Your task to perform on an android device: Open Google Maps and go to "Timeline" Image 0: 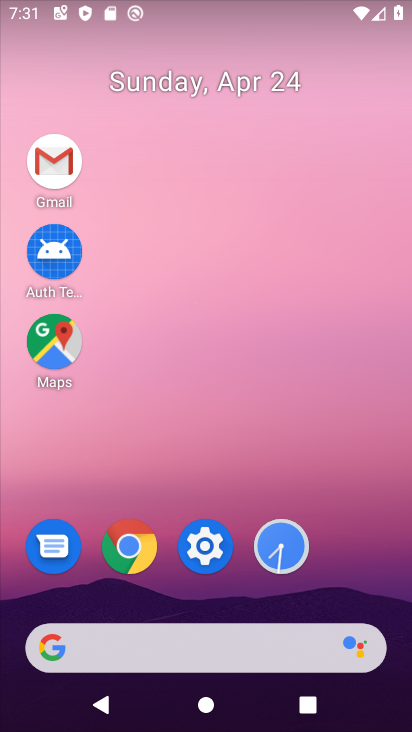
Step 0: click (55, 346)
Your task to perform on an android device: Open Google Maps and go to "Timeline" Image 1: 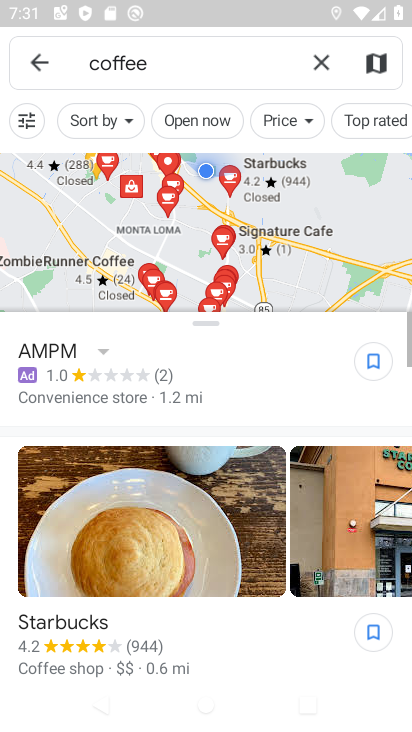
Step 1: click (313, 64)
Your task to perform on an android device: Open Google Maps and go to "Timeline" Image 2: 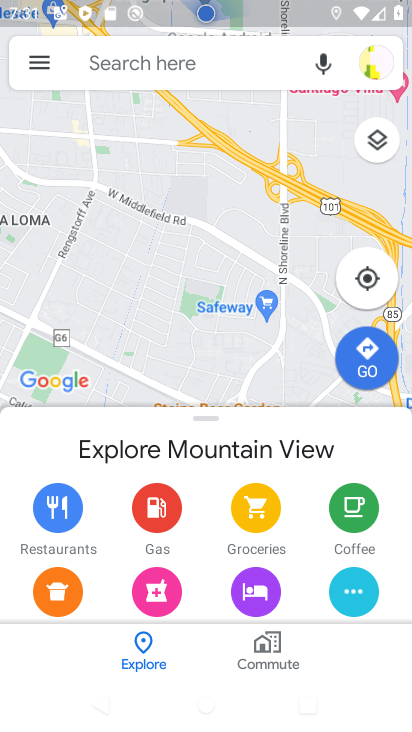
Step 2: click (38, 59)
Your task to perform on an android device: Open Google Maps and go to "Timeline" Image 3: 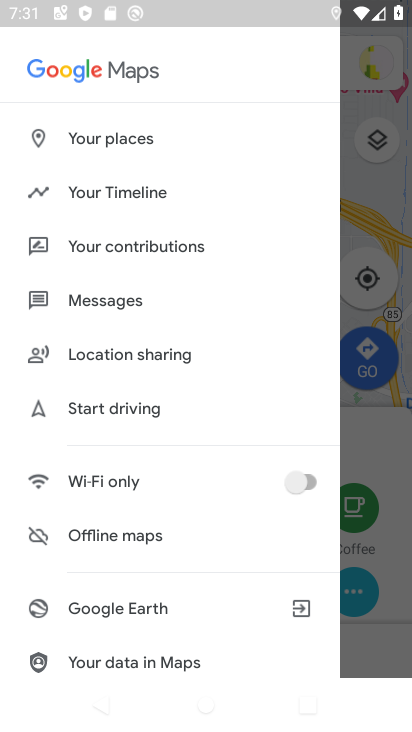
Step 3: click (119, 188)
Your task to perform on an android device: Open Google Maps and go to "Timeline" Image 4: 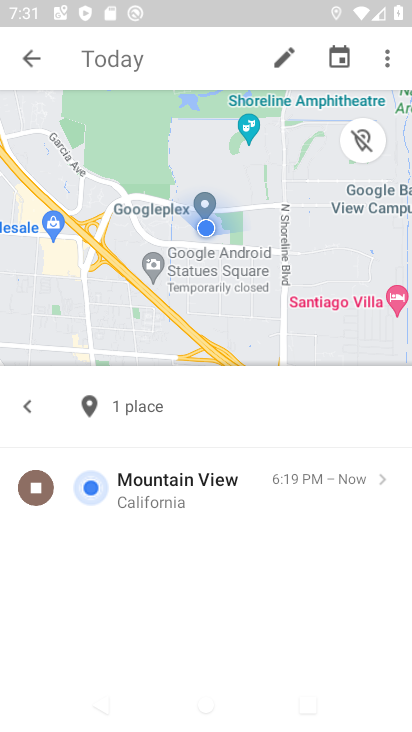
Step 4: task complete